Your task to perform on an android device: Open eBay Image 0: 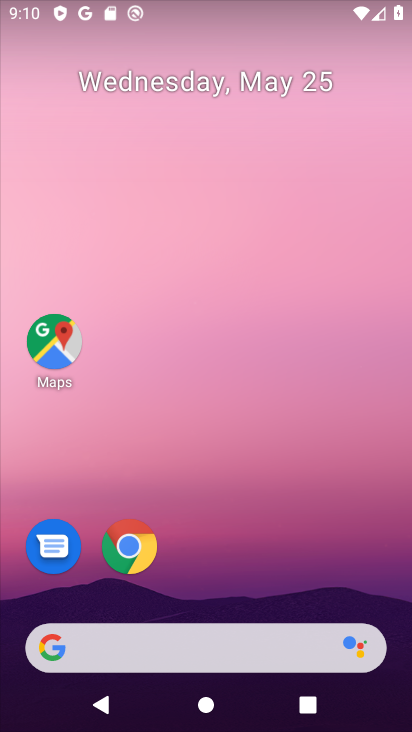
Step 0: click (126, 548)
Your task to perform on an android device: Open eBay Image 1: 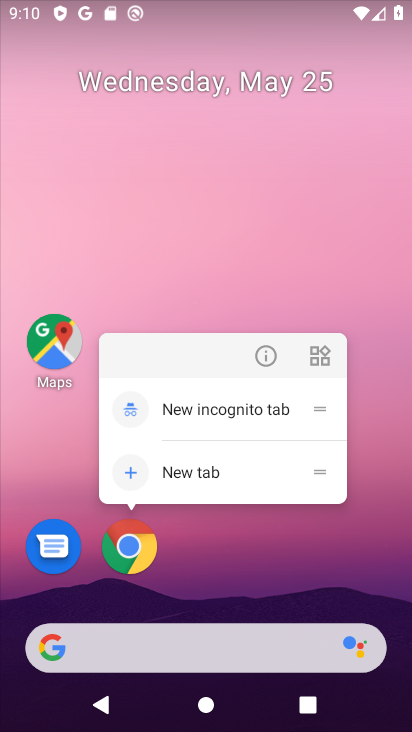
Step 1: click (139, 545)
Your task to perform on an android device: Open eBay Image 2: 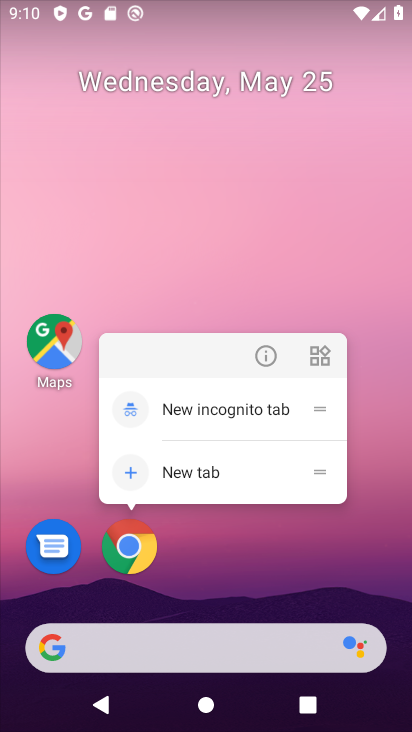
Step 2: click (139, 545)
Your task to perform on an android device: Open eBay Image 3: 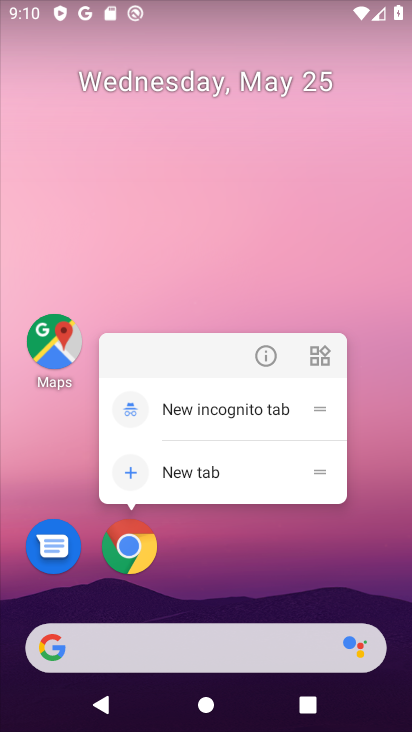
Step 3: click (141, 537)
Your task to perform on an android device: Open eBay Image 4: 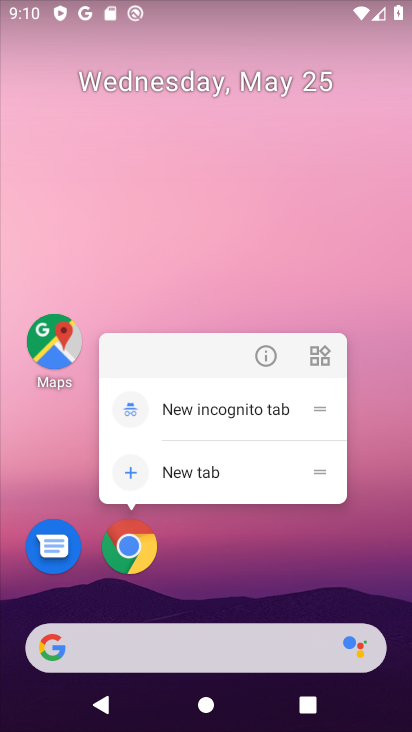
Step 4: click (130, 560)
Your task to perform on an android device: Open eBay Image 5: 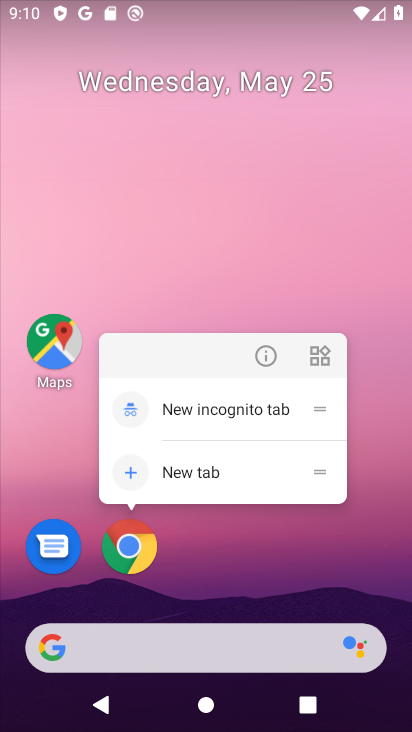
Step 5: click (136, 547)
Your task to perform on an android device: Open eBay Image 6: 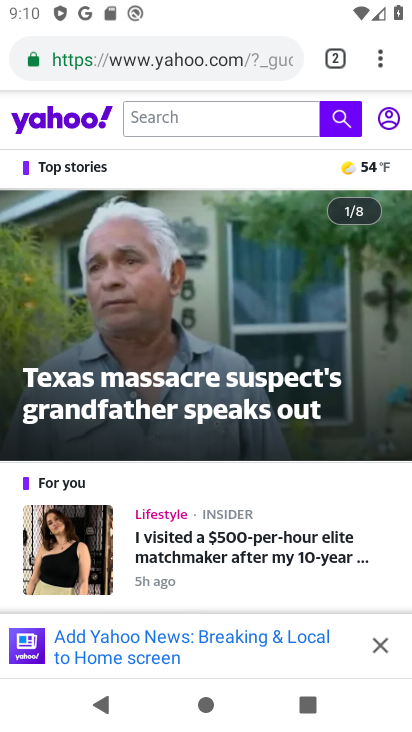
Step 6: drag from (398, 60) to (335, 120)
Your task to perform on an android device: Open eBay Image 7: 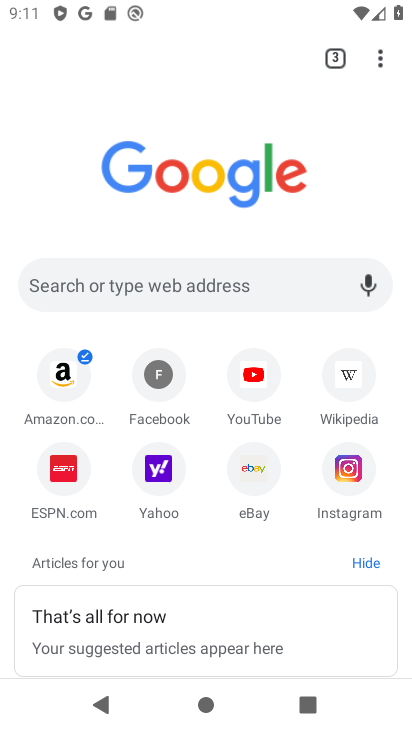
Step 7: click (253, 484)
Your task to perform on an android device: Open eBay Image 8: 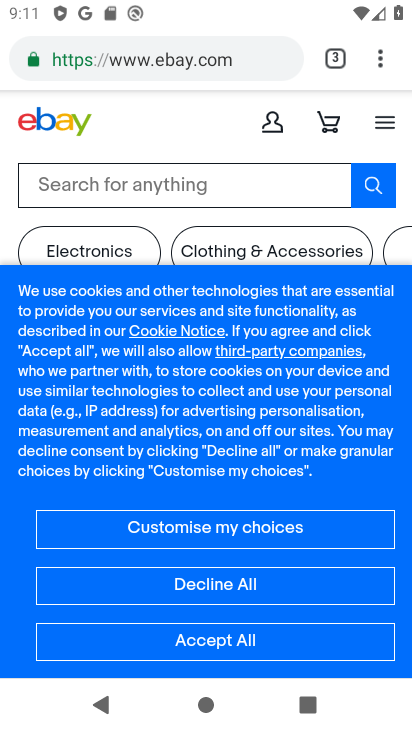
Step 8: click (238, 643)
Your task to perform on an android device: Open eBay Image 9: 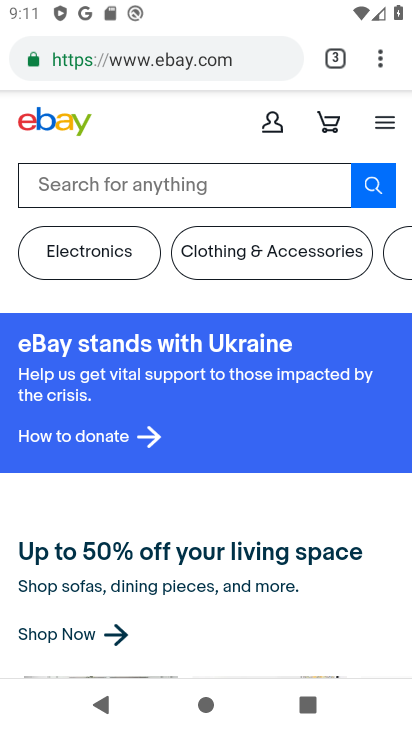
Step 9: task complete